Your task to perform on an android device: Open the web browser Image 0: 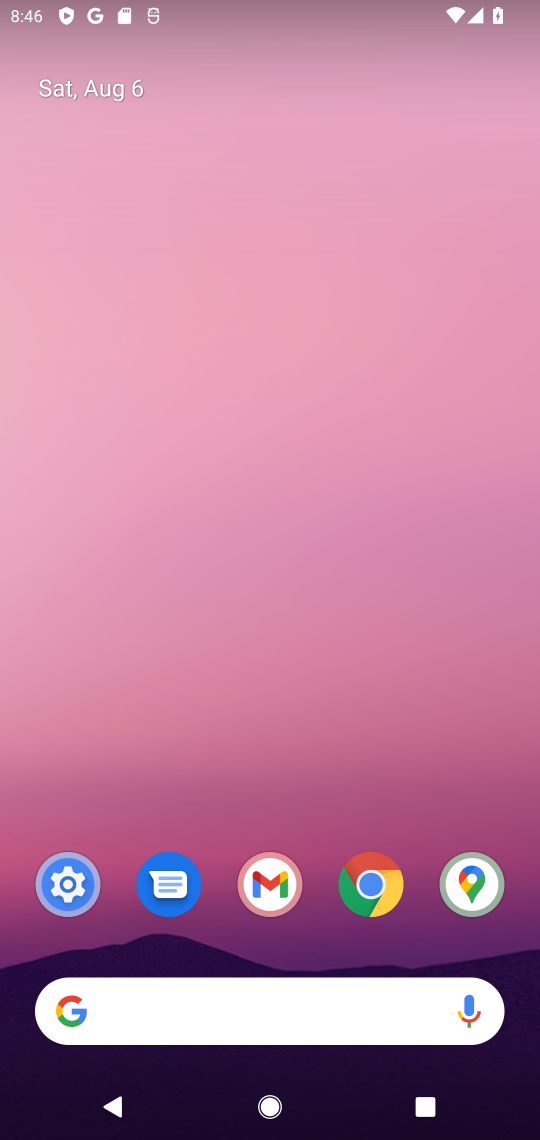
Step 0: click (373, 880)
Your task to perform on an android device: Open the web browser Image 1: 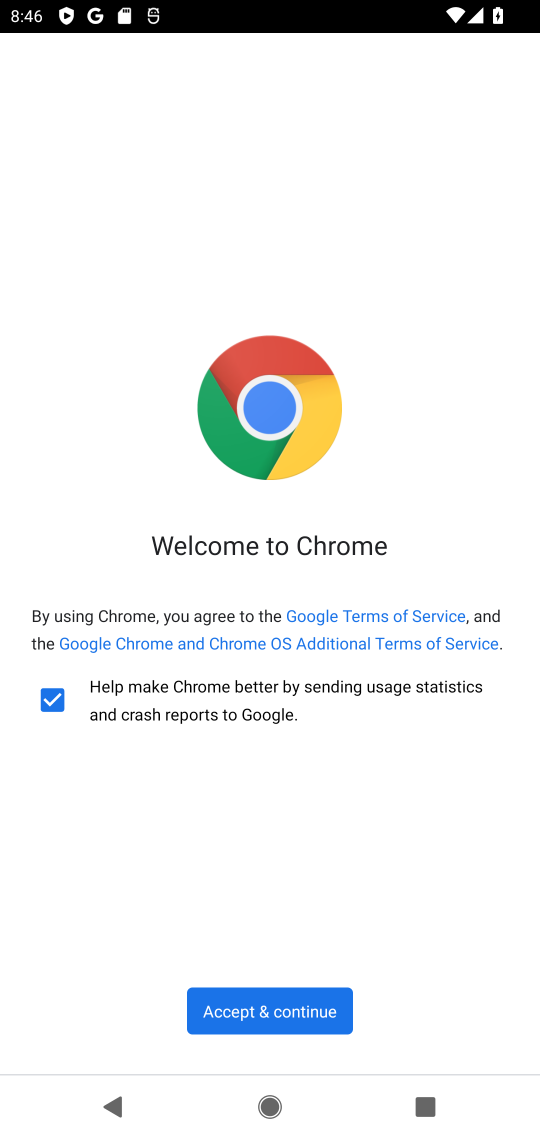
Step 1: click (259, 1010)
Your task to perform on an android device: Open the web browser Image 2: 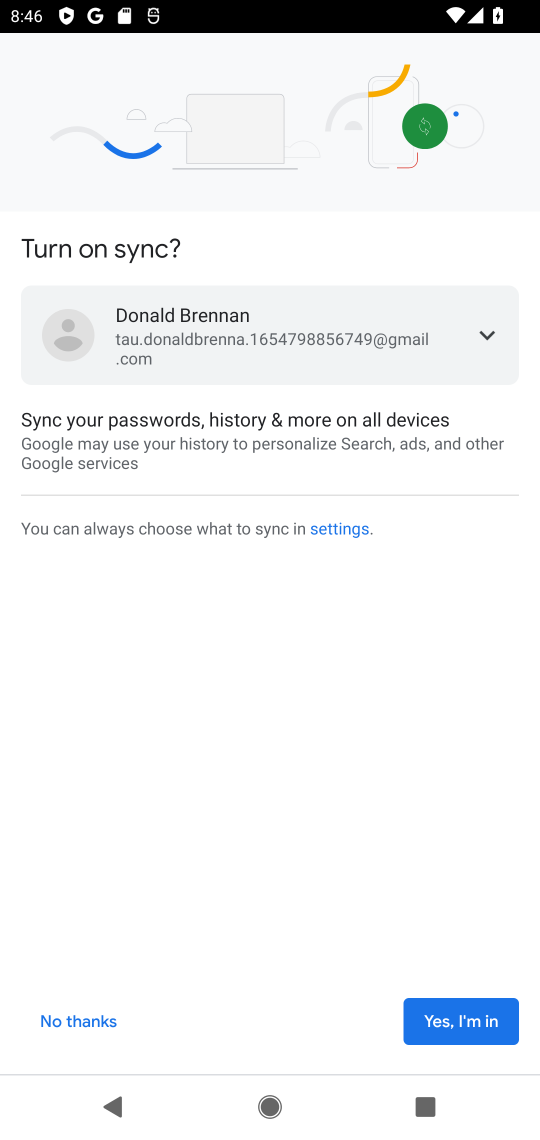
Step 2: click (70, 1012)
Your task to perform on an android device: Open the web browser Image 3: 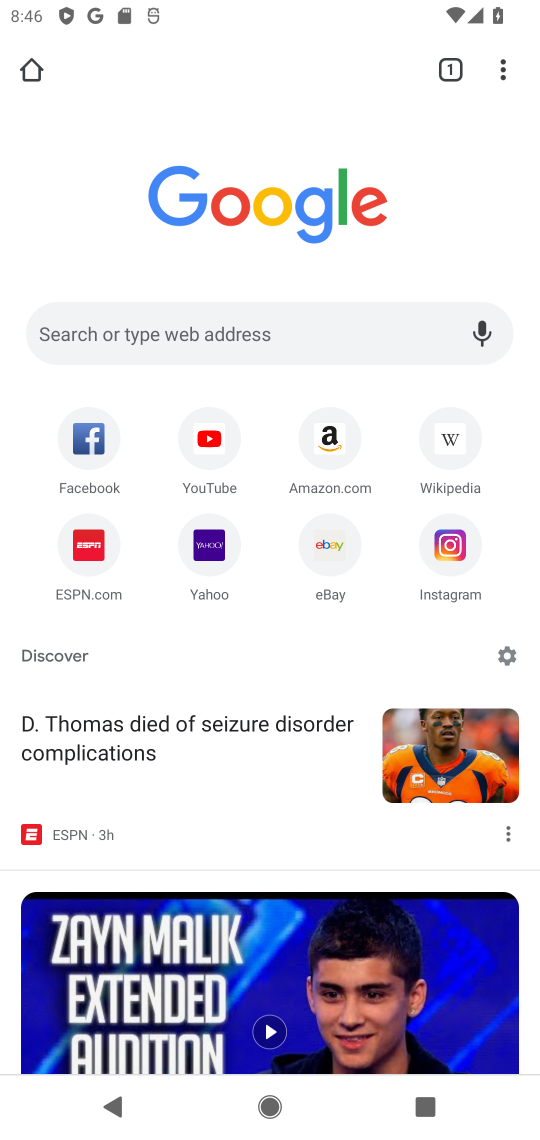
Step 3: click (364, 883)
Your task to perform on an android device: Open the web browser Image 4: 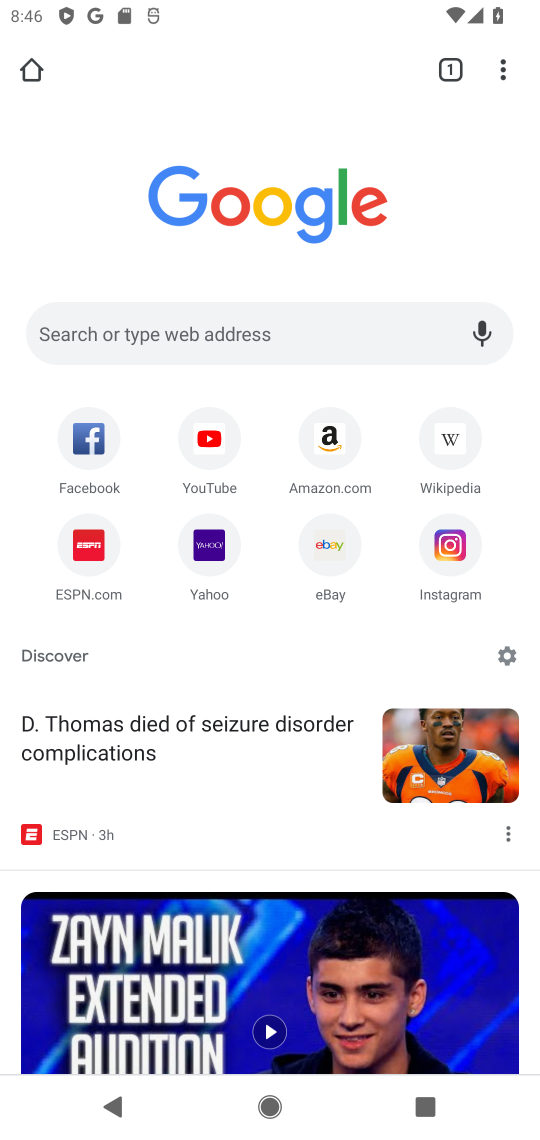
Step 4: task complete